Your task to perform on an android device: turn off location history Image 0: 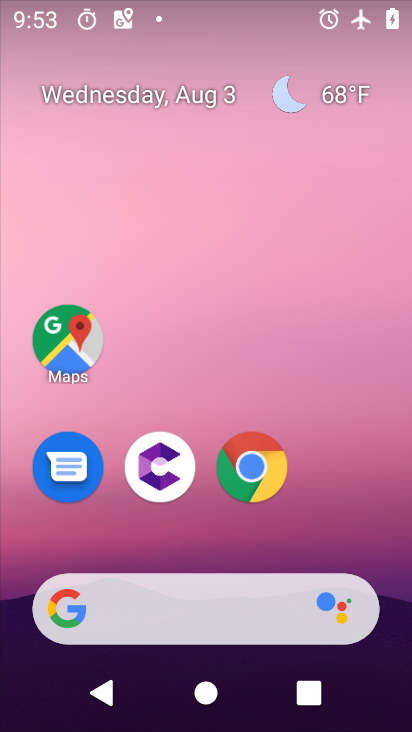
Step 0: drag from (363, 482) to (302, 79)
Your task to perform on an android device: turn off location history Image 1: 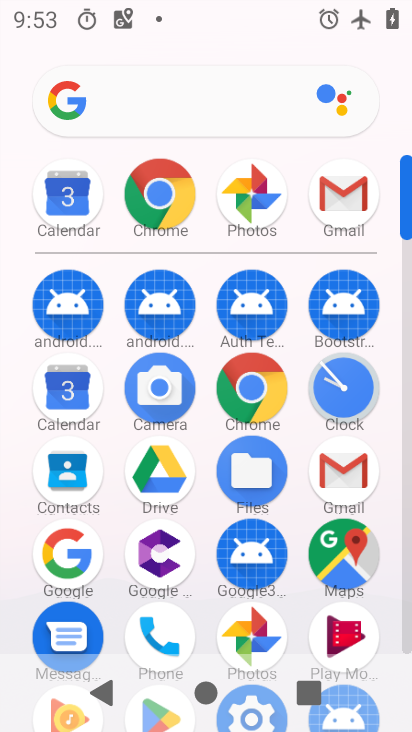
Step 1: drag from (300, 586) to (289, 190)
Your task to perform on an android device: turn off location history Image 2: 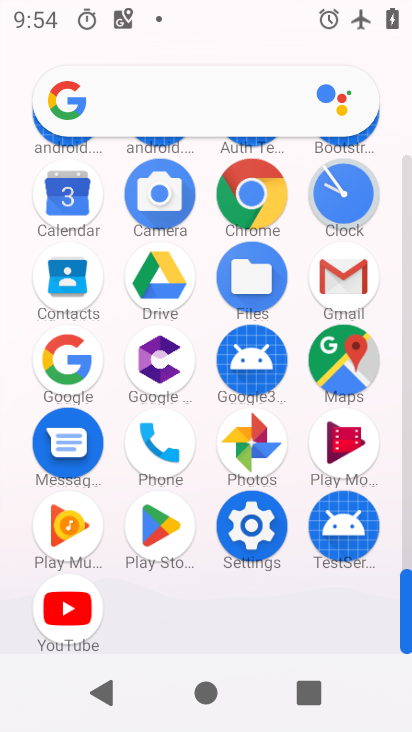
Step 2: click (250, 535)
Your task to perform on an android device: turn off location history Image 3: 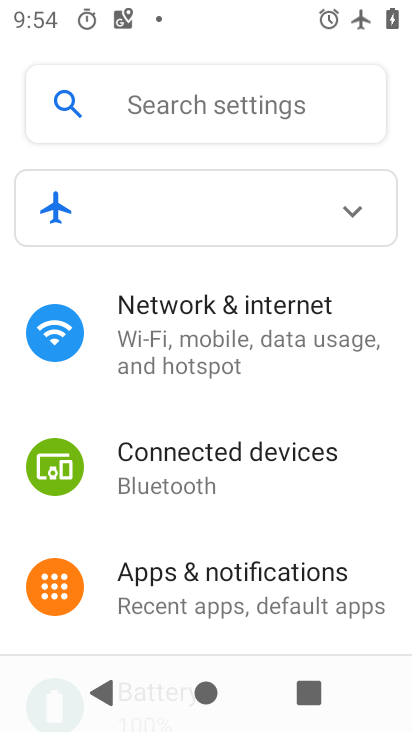
Step 3: drag from (277, 525) to (294, 123)
Your task to perform on an android device: turn off location history Image 4: 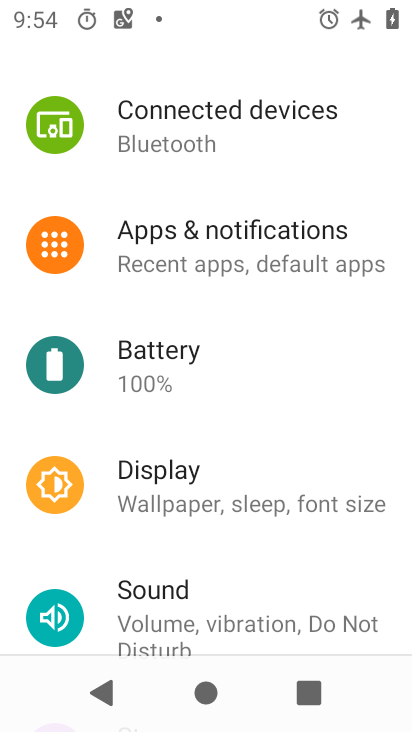
Step 4: drag from (246, 565) to (296, 233)
Your task to perform on an android device: turn off location history Image 5: 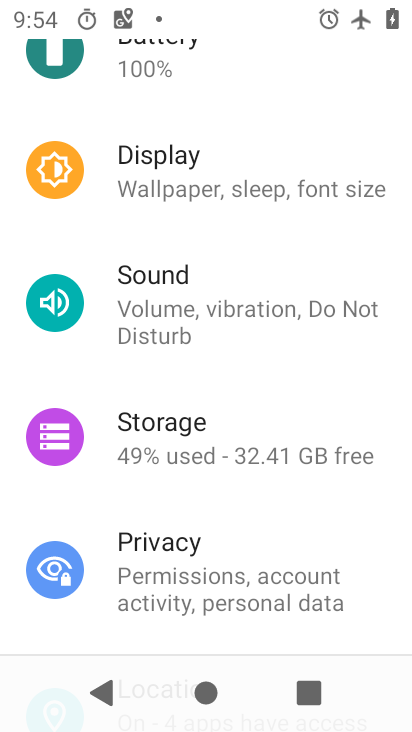
Step 5: drag from (241, 490) to (294, 185)
Your task to perform on an android device: turn off location history Image 6: 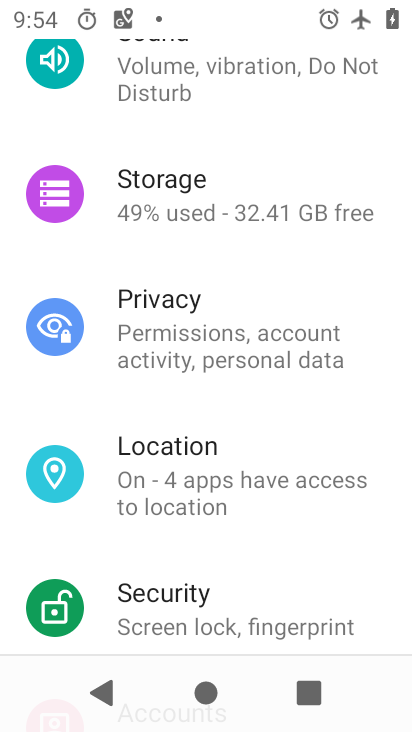
Step 6: click (175, 494)
Your task to perform on an android device: turn off location history Image 7: 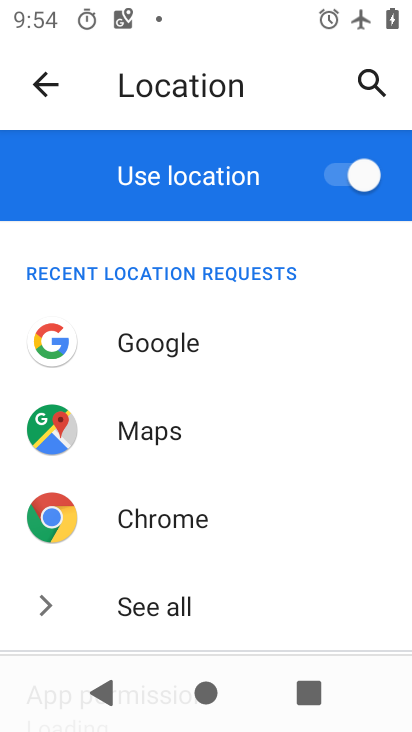
Step 7: drag from (317, 570) to (362, 204)
Your task to perform on an android device: turn off location history Image 8: 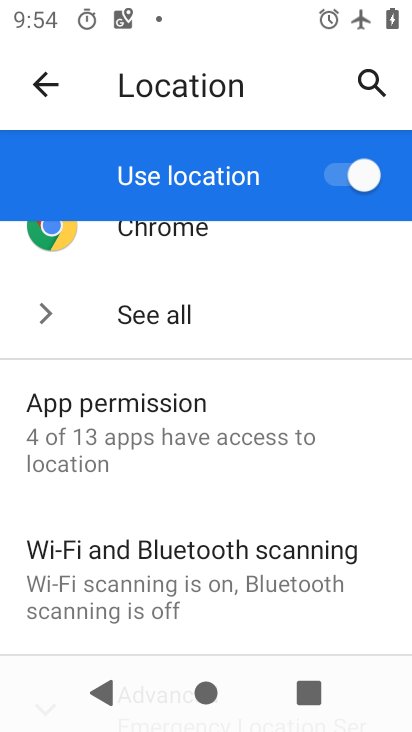
Step 8: drag from (356, 496) to (377, 265)
Your task to perform on an android device: turn off location history Image 9: 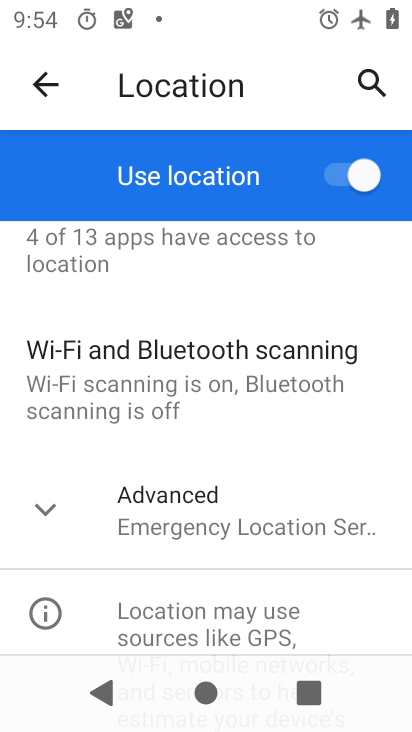
Step 9: click (156, 520)
Your task to perform on an android device: turn off location history Image 10: 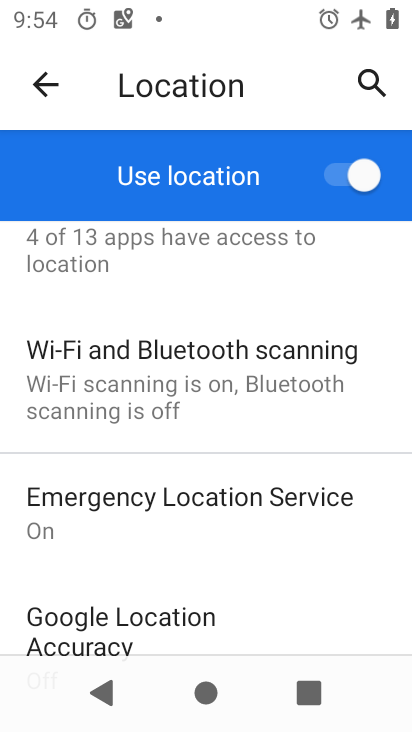
Step 10: drag from (324, 610) to (308, 300)
Your task to perform on an android device: turn off location history Image 11: 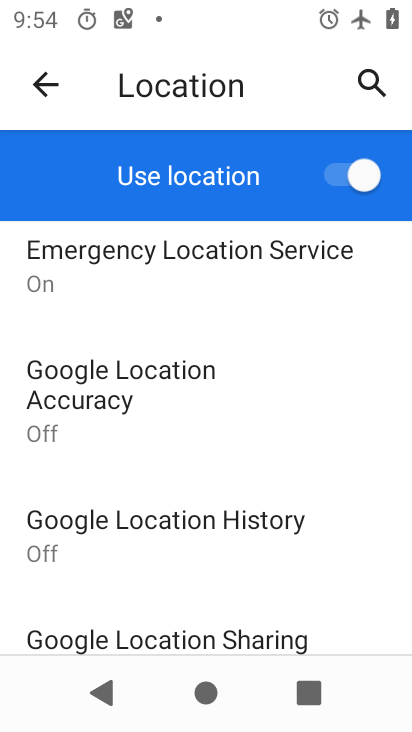
Step 11: click (185, 531)
Your task to perform on an android device: turn off location history Image 12: 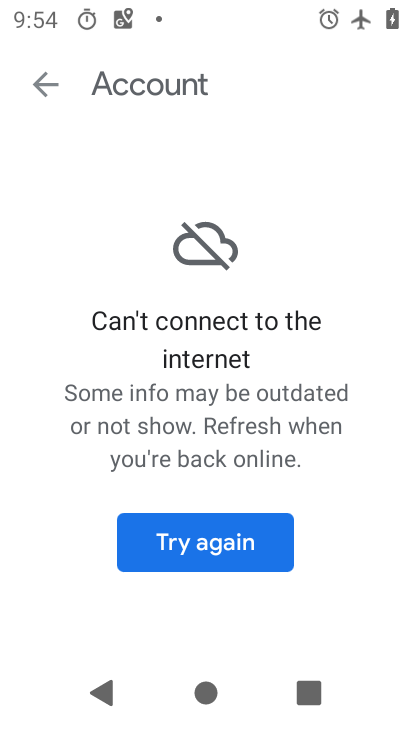
Step 12: task complete